Your task to perform on an android device: What's on my calendar today? Image 0: 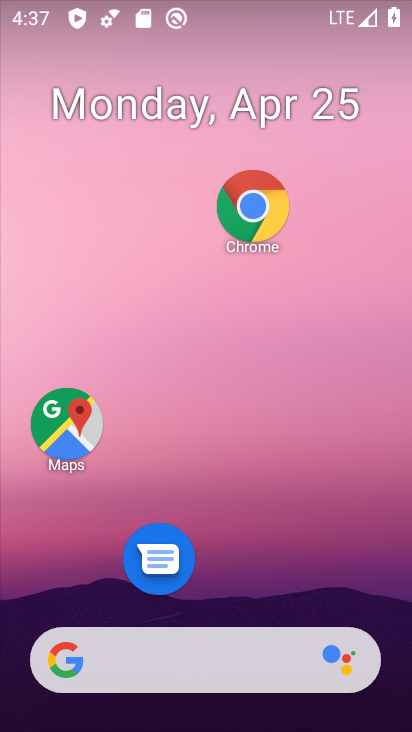
Step 0: drag from (272, 553) to (218, 63)
Your task to perform on an android device: What's on my calendar today? Image 1: 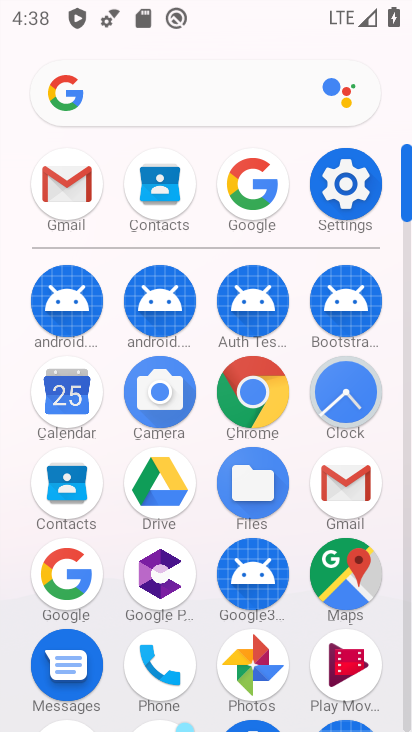
Step 1: click (69, 392)
Your task to perform on an android device: What's on my calendar today? Image 2: 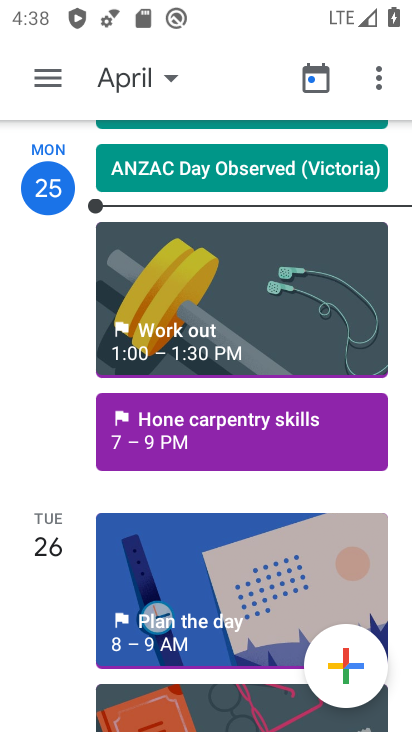
Step 2: click (211, 416)
Your task to perform on an android device: What's on my calendar today? Image 3: 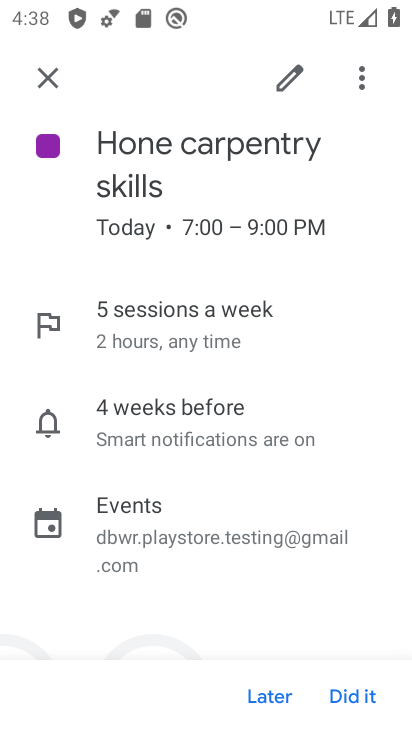
Step 3: task complete